Your task to perform on an android device: add a contact Image 0: 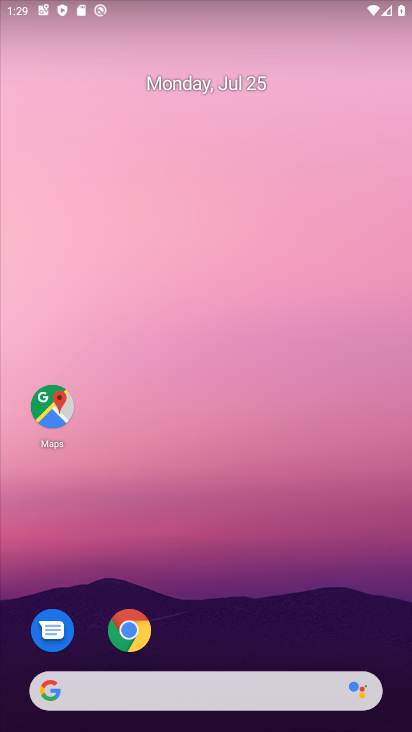
Step 0: drag from (283, 652) to (317, 7)
Your task to perform on an android device: add a contact Image 1: 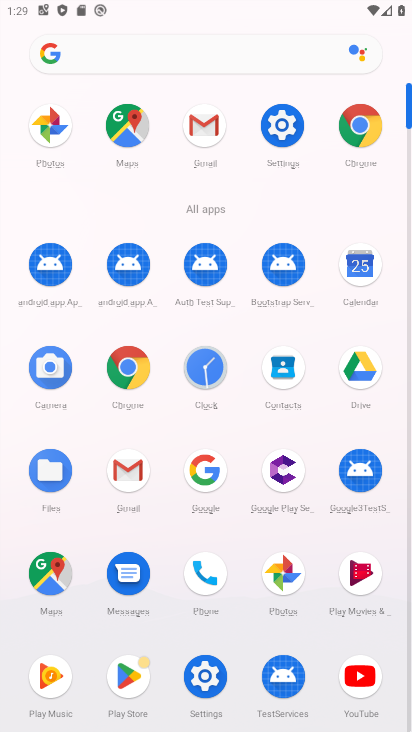
Step 1: click (359, 269)
Your task to perform on an android device: add a contact Image 2: 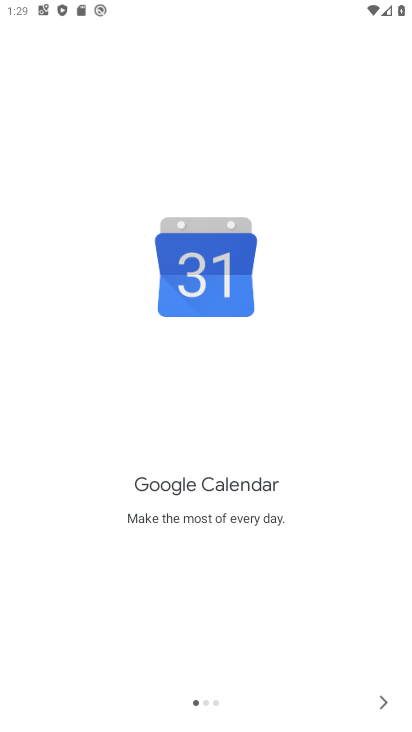
Step 2: press back button
Your task to perform on an android device: add a contact Image 3: 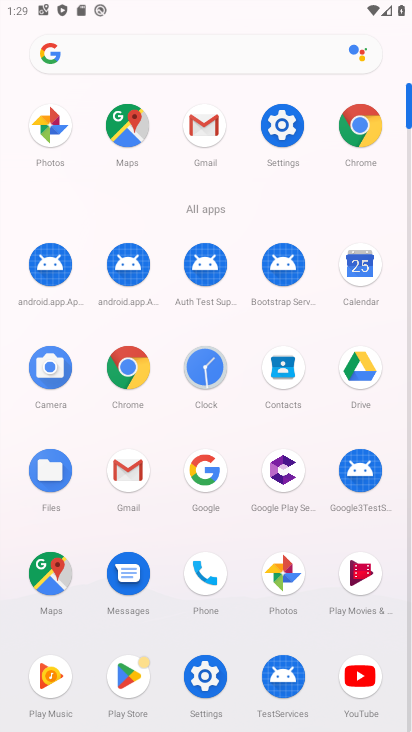
Step 3: click (295, 380)
Your task to perform on an android device: add a contact Image 4: 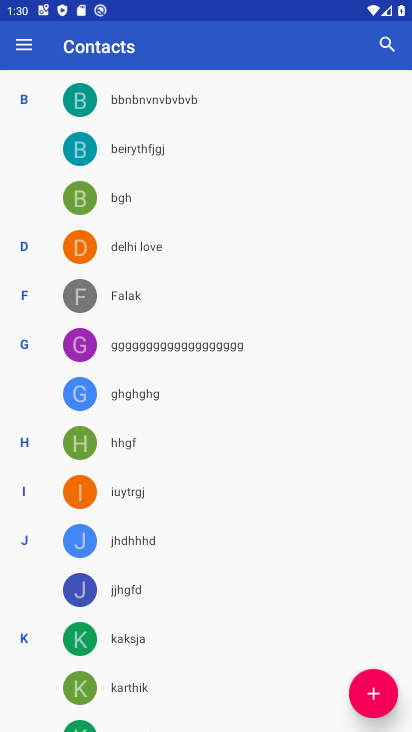
Step 4: click (377, 702)
Your task to perform on an android device: add a contact Image 5: 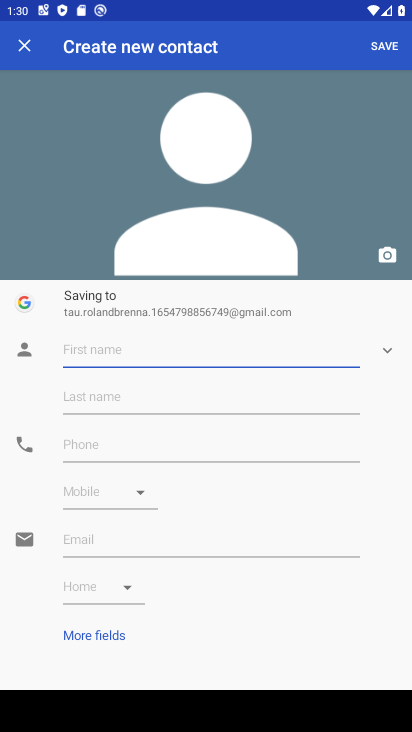
Step 5: type "dfsd"
Your task to perform on an android device: add a contact Image 6: 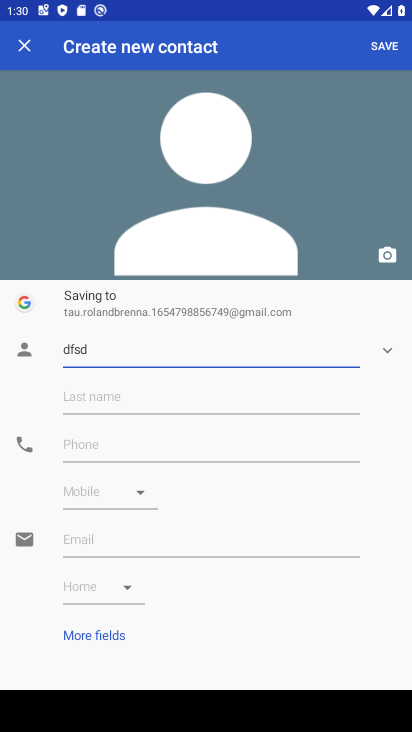
Step 6: click (256, 392)
Your task to perform on an android device: add a contact Image 7: 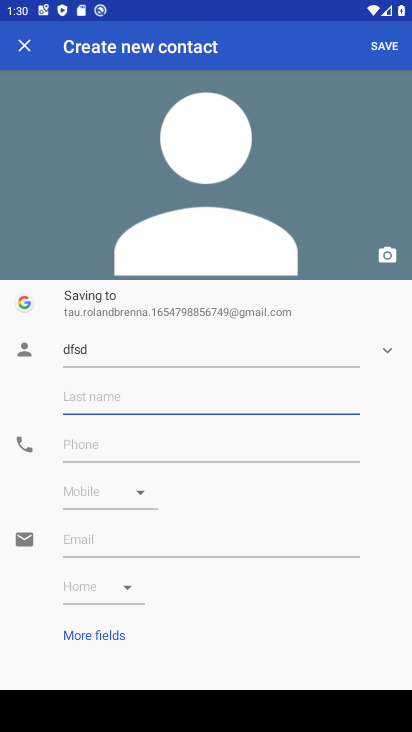
Step 7: type "sdcsdf"
Your task to perform on an android device: add a contact Image 8: 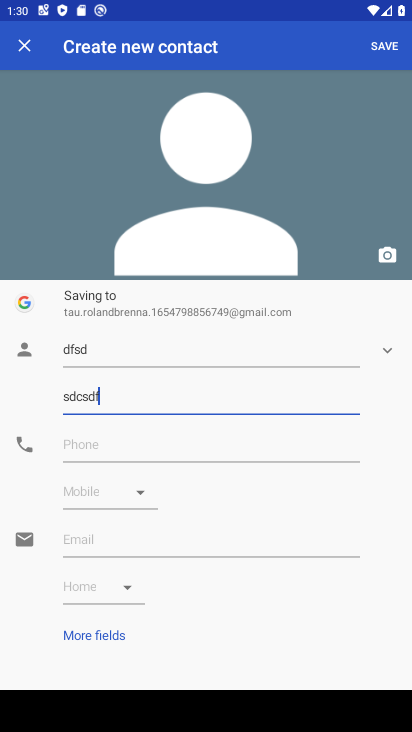
Step 8: click (200, 441)
Your task to perform on an android device: add a contact Image 9: 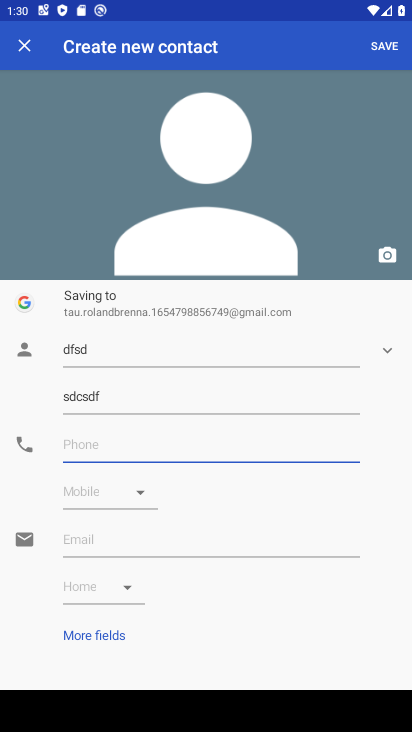
Step 9: type "32424545"
Your task to perform on an android device: add a contact Image 10: 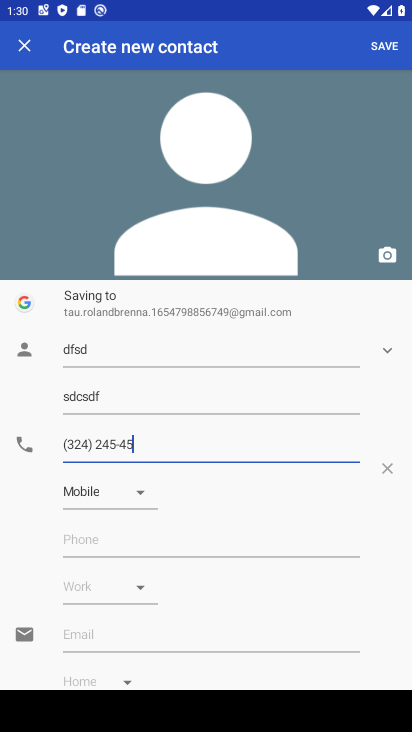
Step 10: click (372, 56)
Your task to perform on an android device: add a contact Image 11: 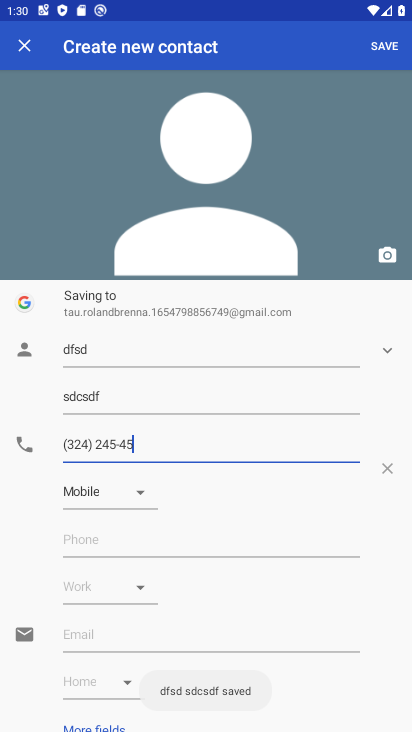
Step 11: task complete